Your task to perform on an android device: Open ESPN.com Image 0: 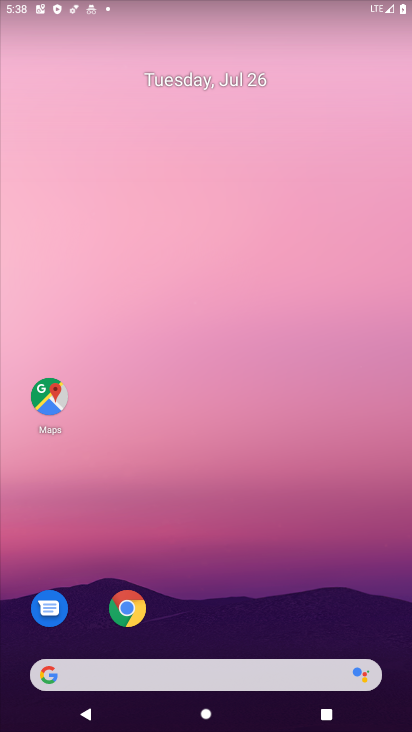
Step 0: click (38, 682)
Your task to perform on an android device: Open ESPN.com Image 1: 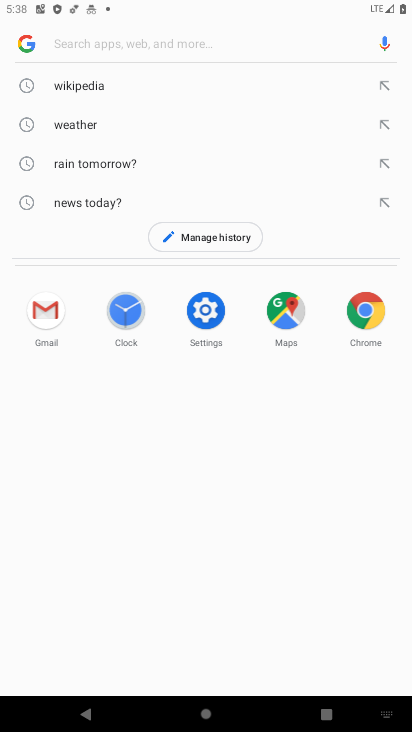
Step 1: type " ESPN.com"
Your task to perform on an android device: Open ESPN.com Image 2: 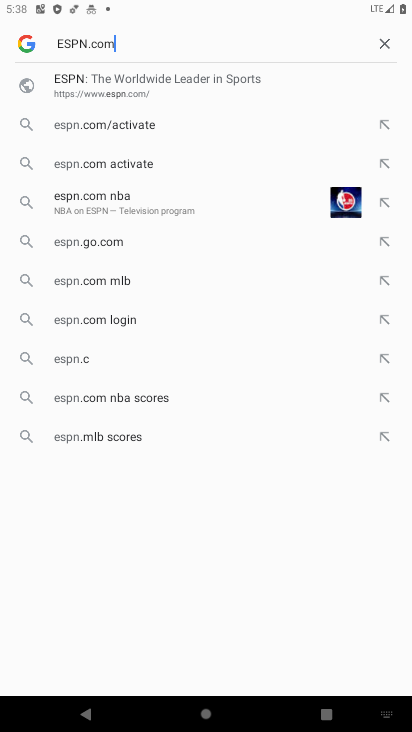
Step 2: press enter
Your task to perform on an android device: Open ESPN.com Image 3: 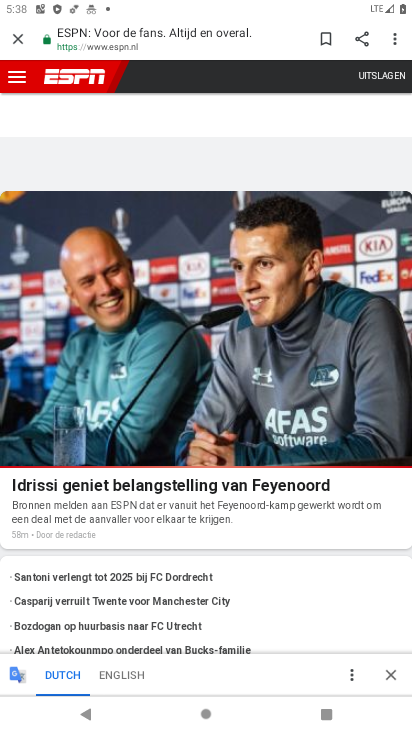
Step 3: task complete